Your task to perform on an android device: Open Amazon Image 0: 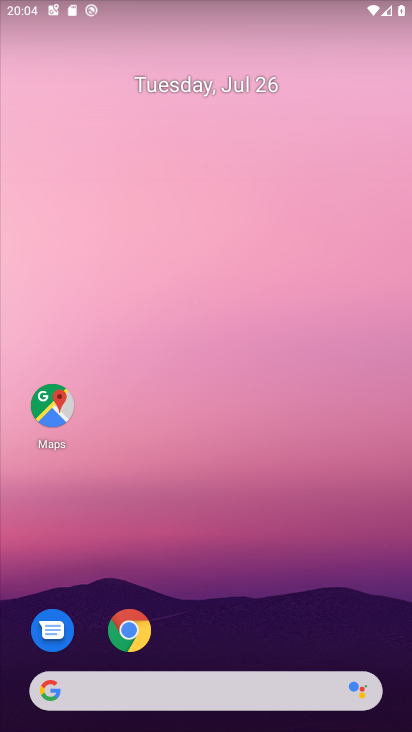
Step 0: click (135, 624)
Your task to perform on an android device: Open Amazon Image 1: 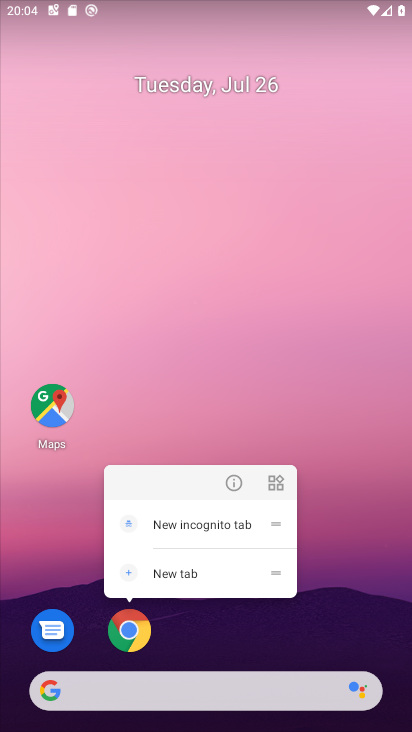
Step 1: click (138, 628)
Your task to perform on an android device: Open Amazon Image 2: 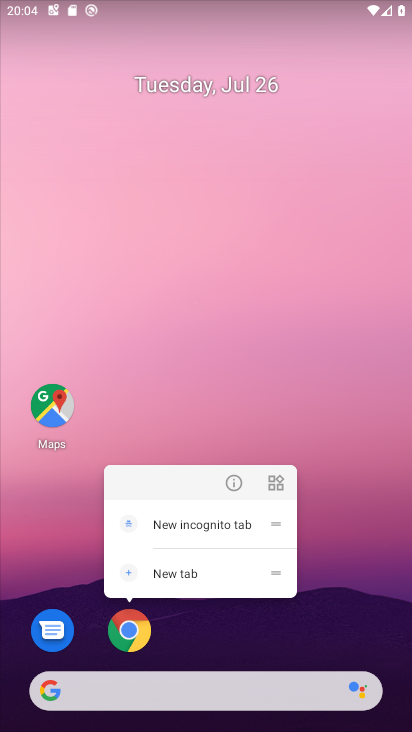
Step 2: click (129, 631)
Your task to perform on an android device: Open Amazon Image 3: 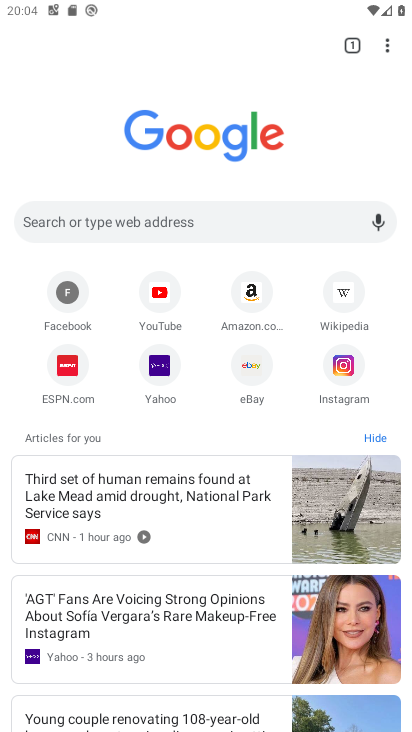
Step 3: click (137, 221)
Your task to perform on an android device: Open Amazon Image 4: 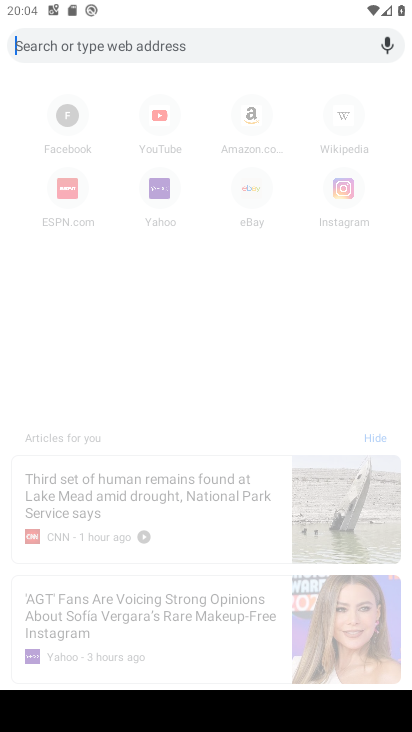
Step 4: type "Amazon"
Your task to perform on an android device: Open Amazon Image 5: 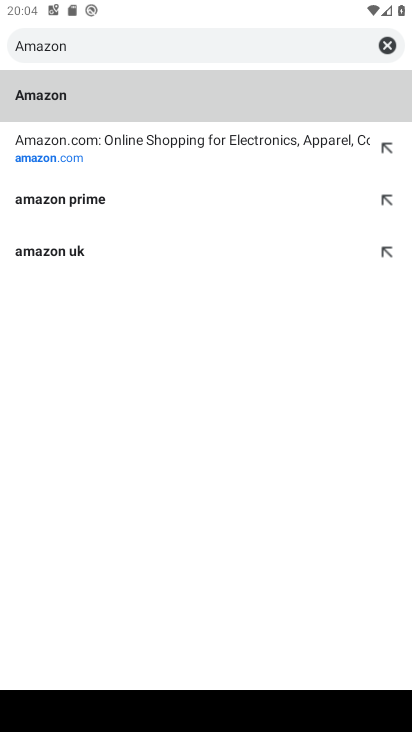
Step 5: click (65, 90)
Your task to perform on an android device: Open Amazon Image 6: 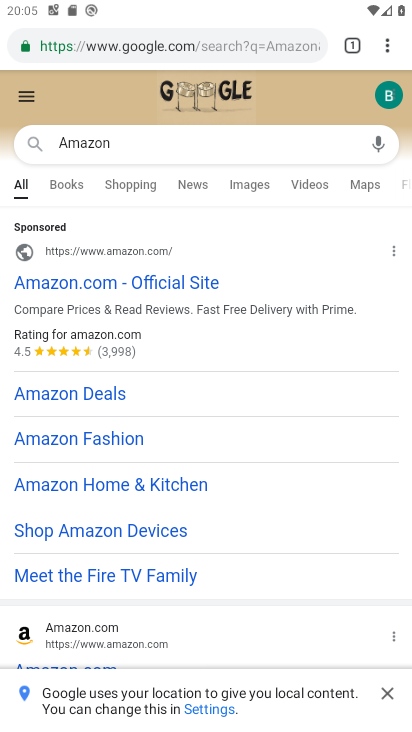
Step 6: task complete